Your task to perform on an android device: open app "Walmart Shopping & Grocery" (install if not already installed) Image 0: 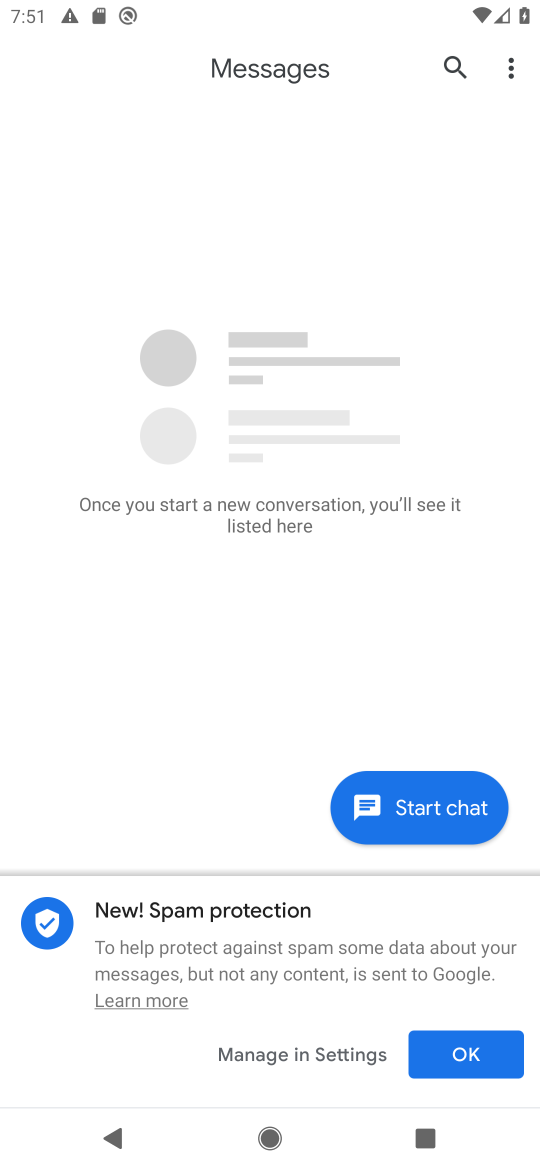
Step 0: press home button
Your task to perform on an android device: open app "Walmart Shopping & Grocery" (install if not already installed) Image 1: 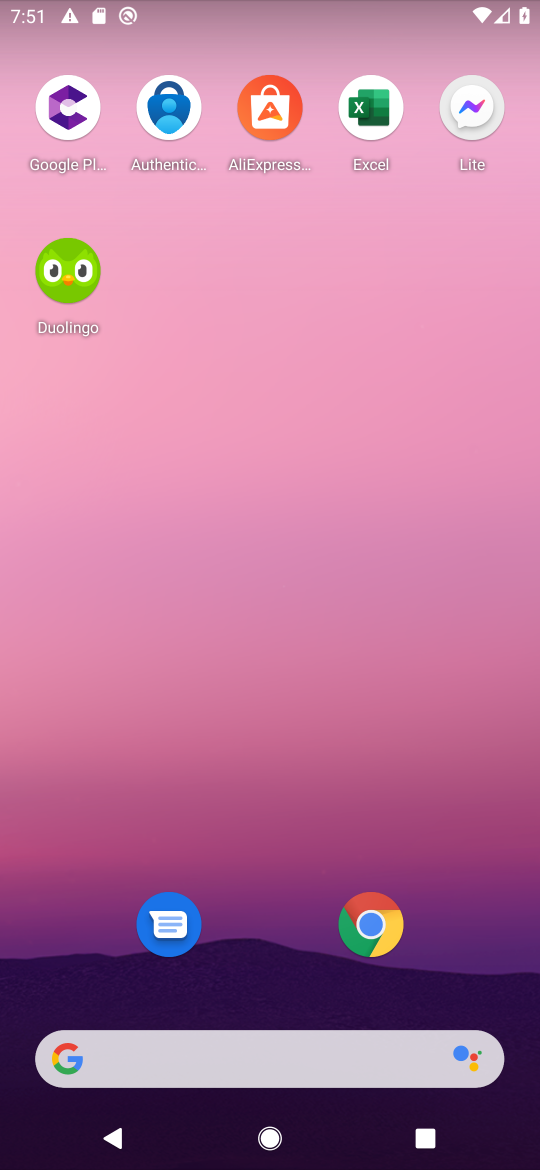
Step 1: drag from (265, 845) to (272, 290)
Your task to perform on an android device: open app "Walmart Shopping & Grocery" (install if not already installed) Image 2: 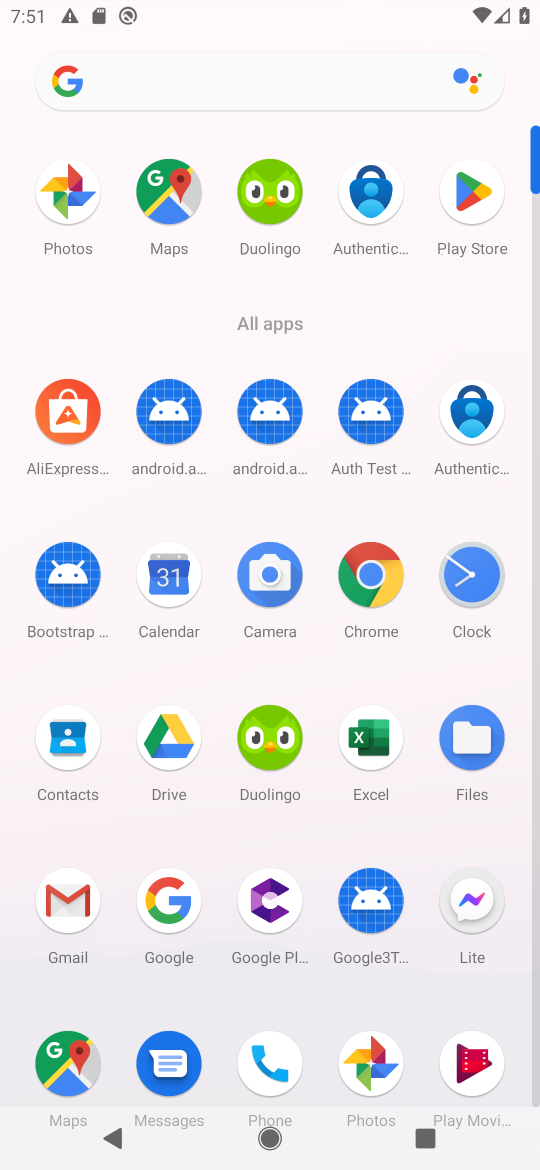
Step 2: click (459, 195)
Your task to perform on an android device: open app "Walmart Shopping & Grocery" (install if not already installed) Image 3: 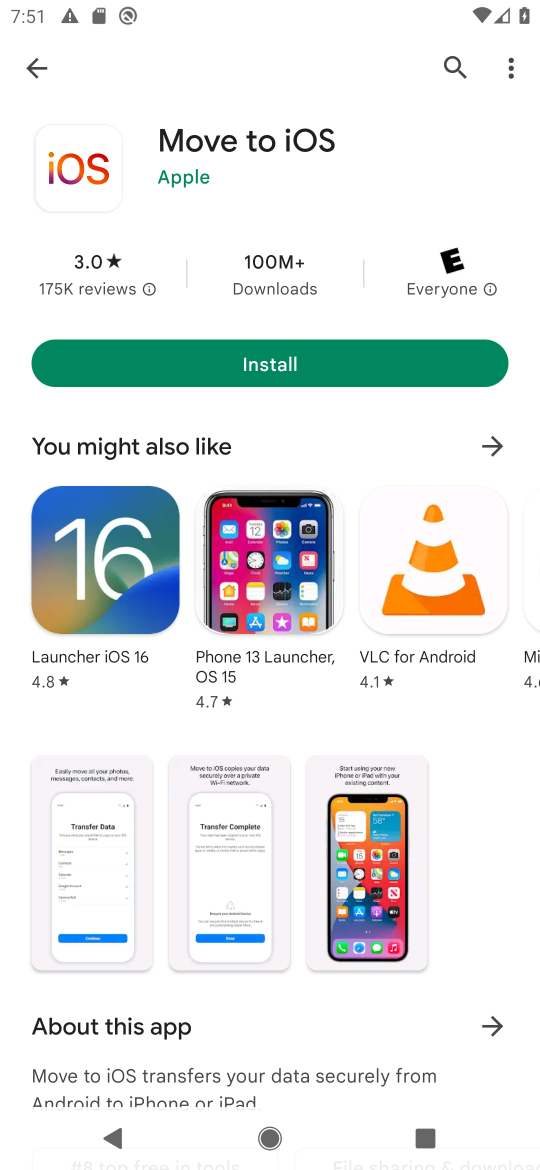
Step 3: click (41, 63)
Your task to perform on an android device: open app "Walmart Shopping & Grocery" (install if not already installed) Image 4: 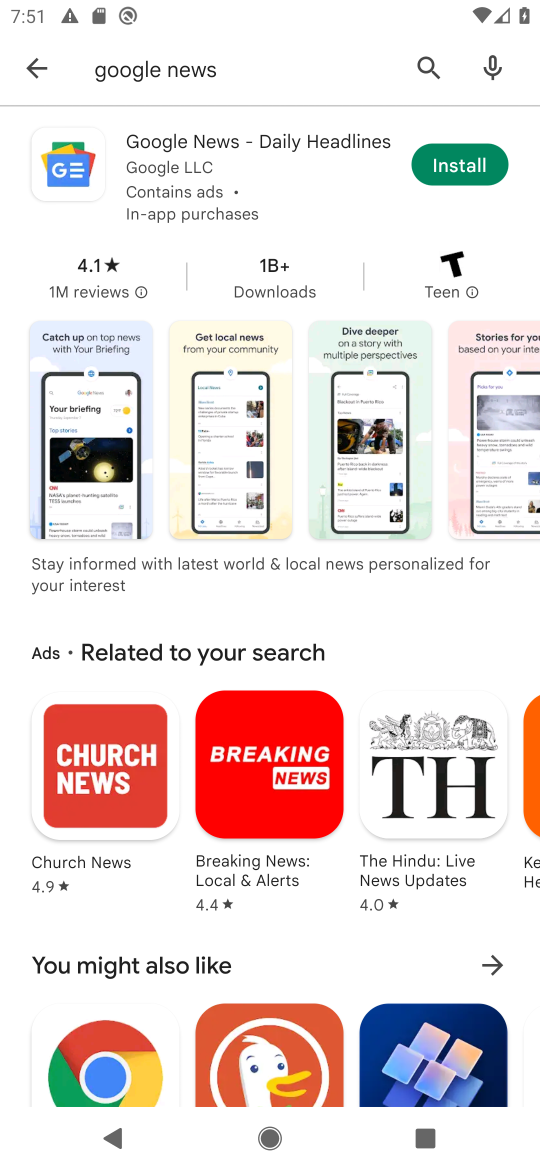
Step 4: click (431, 72)
Your task to perform on an android device: open app "Walmart Shopping & Grocery" (install if not already installed) Image 5: 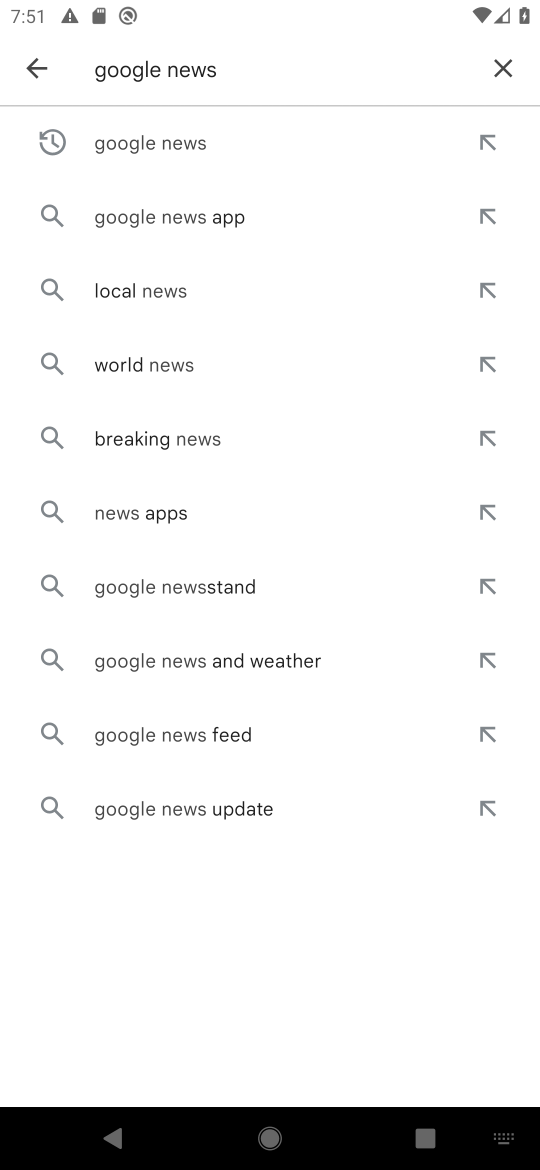
Step 5: click (501, 73)
Your task to perform on an android device: open app "Walmart Shopping & Grocery" (install if not already installed) Image 6: 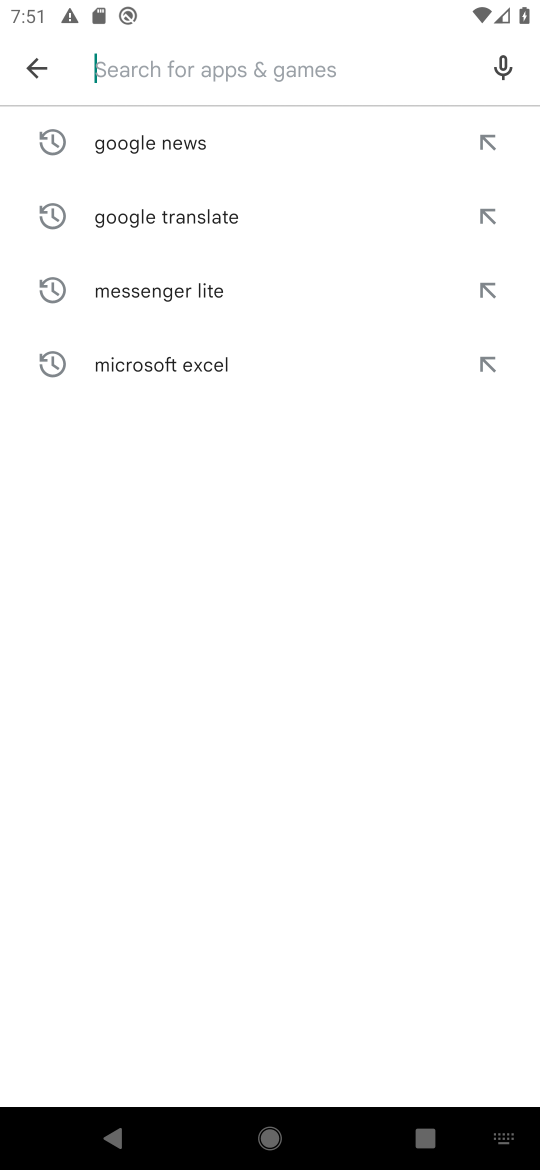
Step 6: type "Walmart Shopping & Grocery"
Your task to perform on an android device: open app "Walmart Shopping & Grocery" (install if not already installed) Image 7: 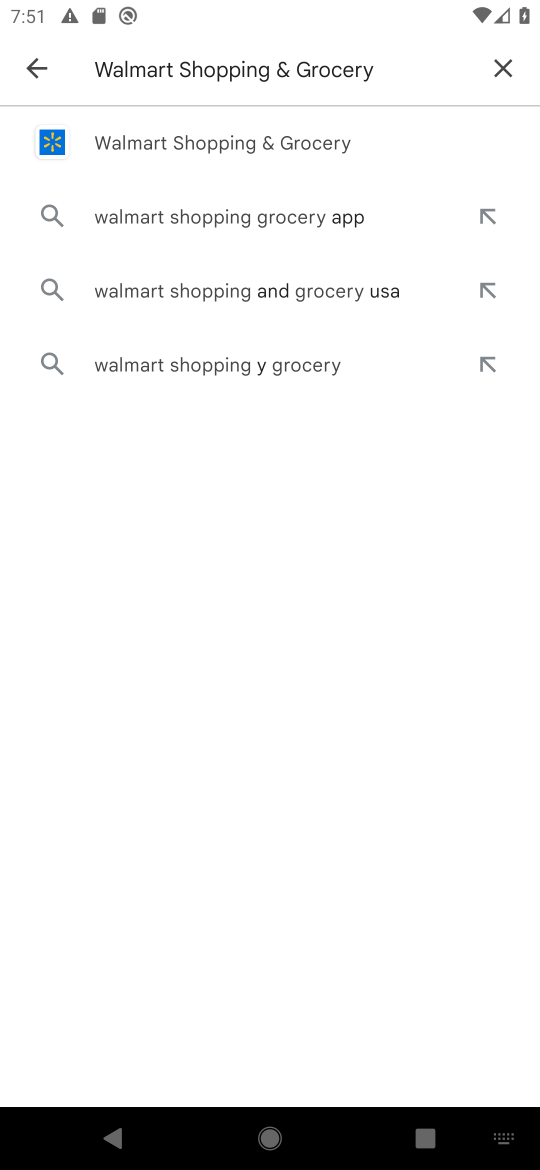
Step 7: click (166, 138)
Your task to perform on an android device: open app "Walmart Shopping & Grocery" (install if not already installed) Image 8: 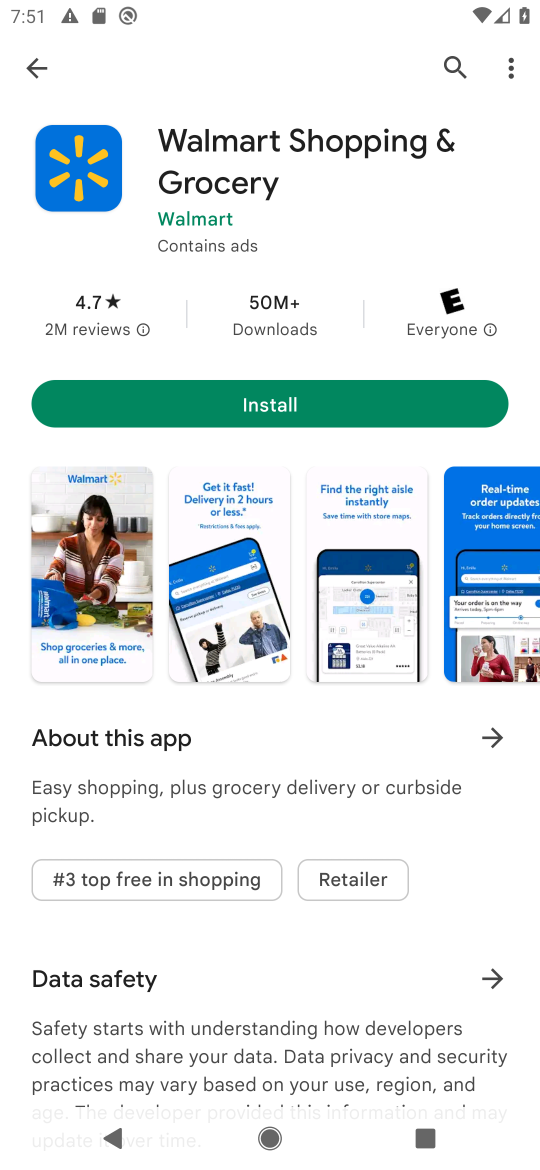
Step 8: click (285, 391)
Your task to perform on an android device: open app "Walmart Shopping & Grocery" (install if not already installed) Image 9: 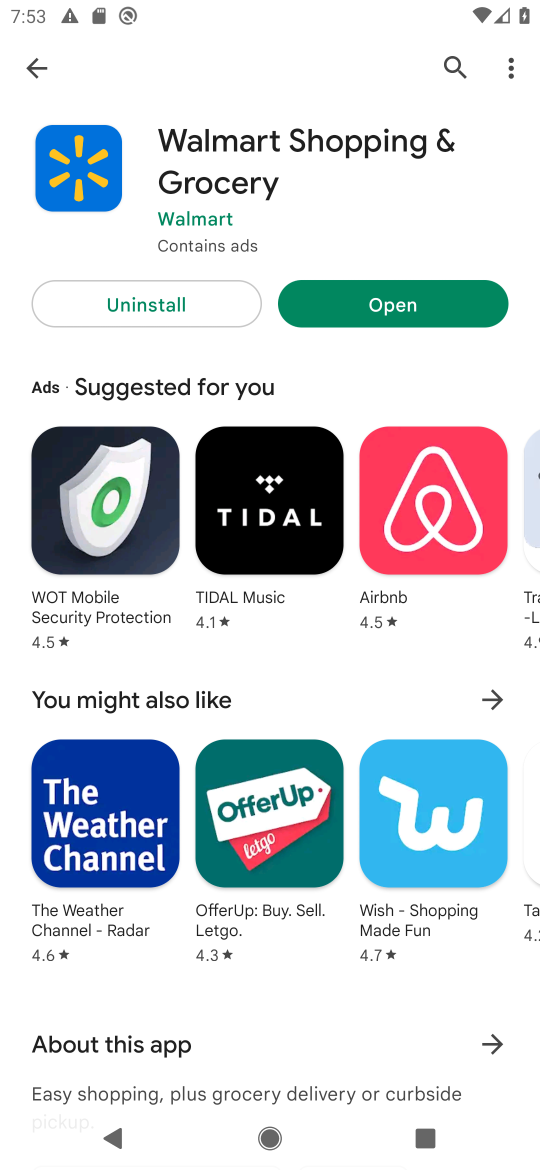
Step 9: click (436, 314)
Your task to perform on an android device: open app "Walmart Shopping & Grocery" (install if not already installed) Image 10: 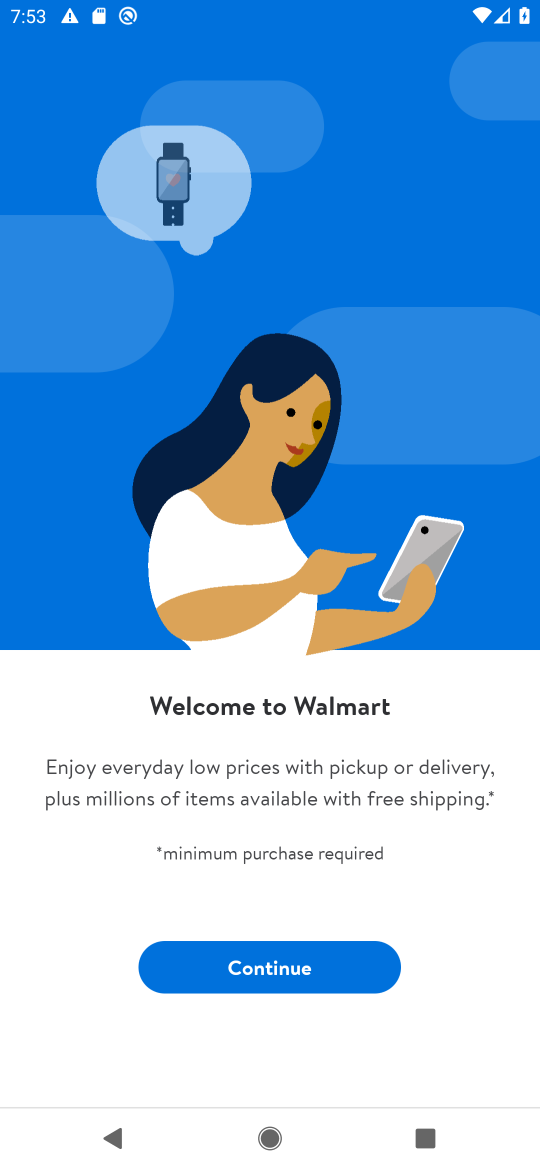
Step 10: task complete